Your task to perform on an android device: What's on my calendar today? Image 0: 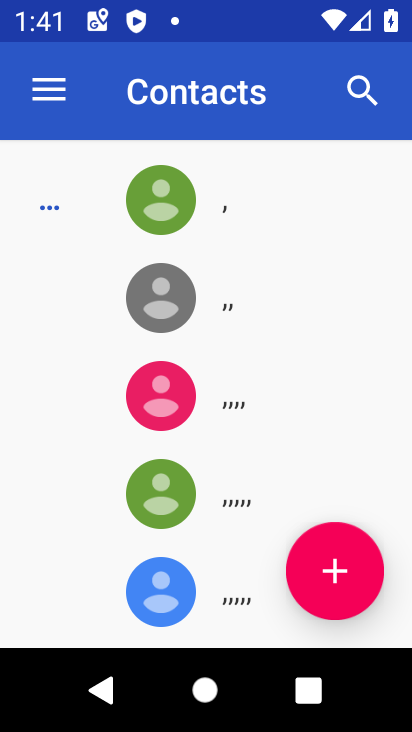
Step 0: press home button
Your task to perform on an android device: What's on my calendar today? Image 1: 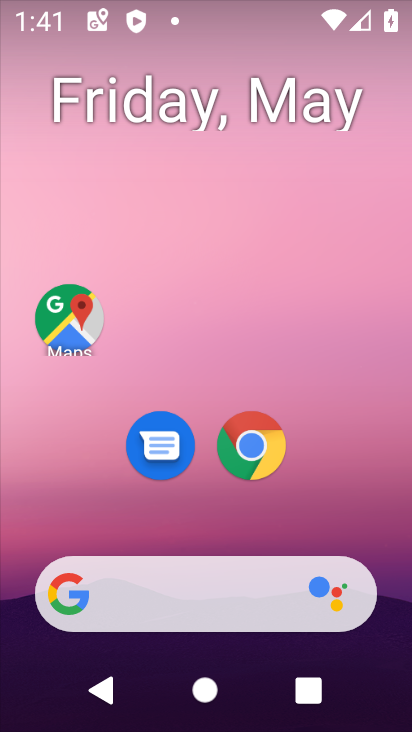
Step 1: drag from (388, 569) to (327, 158)
Your task to perform on an android device: What's on my calendar today? Image 2: 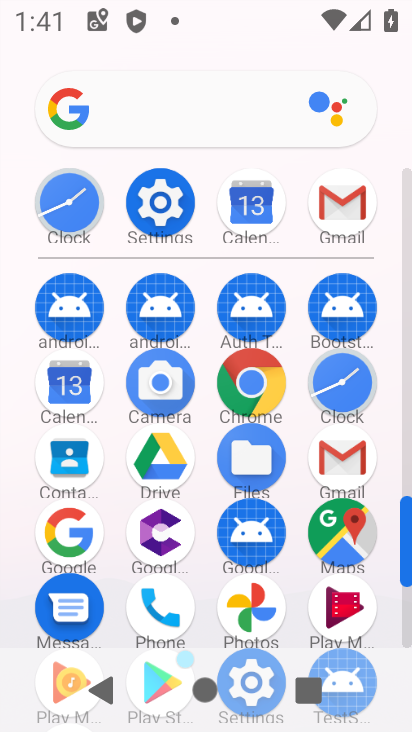
Step 2: click (405, 635)
Your task to perform on an android device: What's on my calendar today? Image 3: 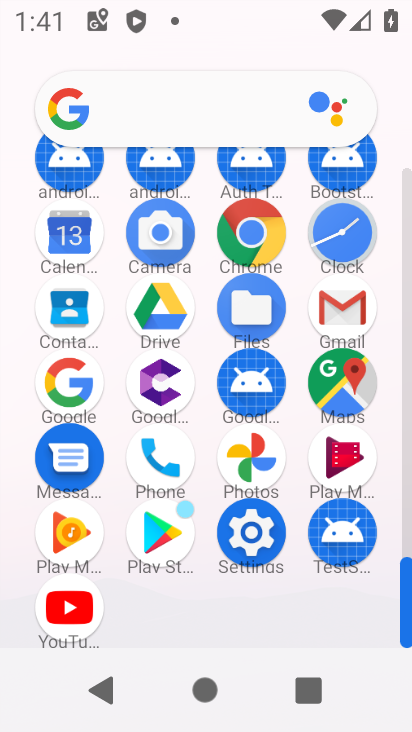
Step 3: click (73, 231)
Your task to perform on an android device: What's on my calendar today? Image 4: 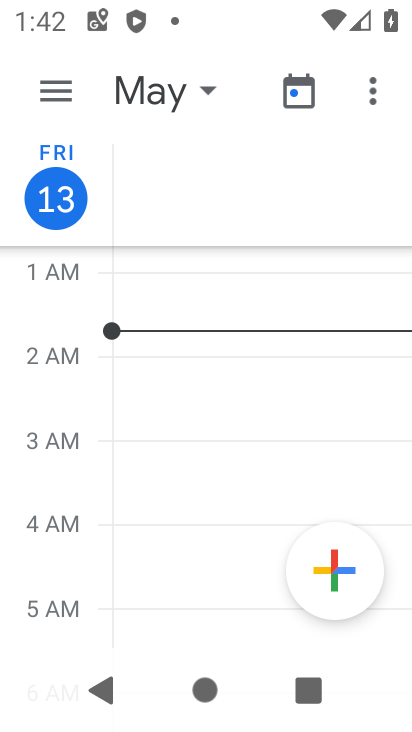
Step 4: click (51, 79)
Your task to perform on an android device: What's on my calendar today? Image 5: 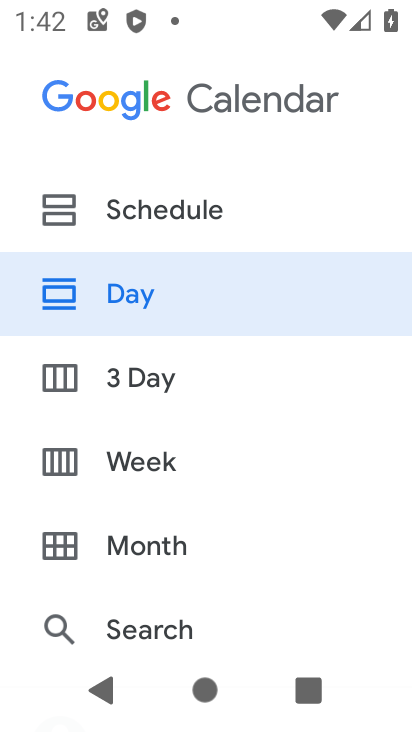
Step 5: click (121, 288)
Your task to perform on an android device: What's on my calendar today? Image 6: 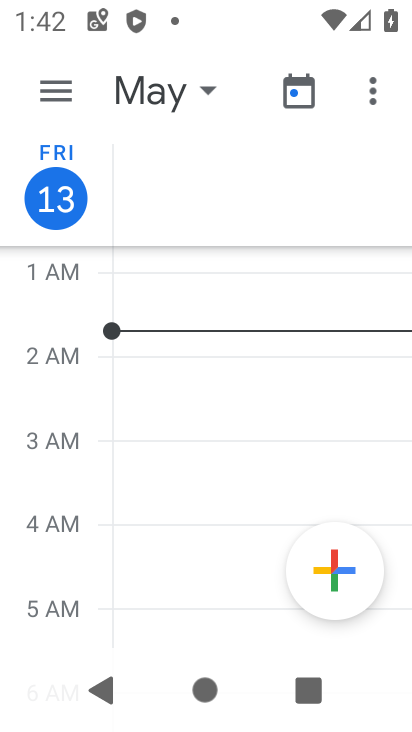
Step 6: task complete